Your task to perform on an android device: toggle sleep mode Image 0: 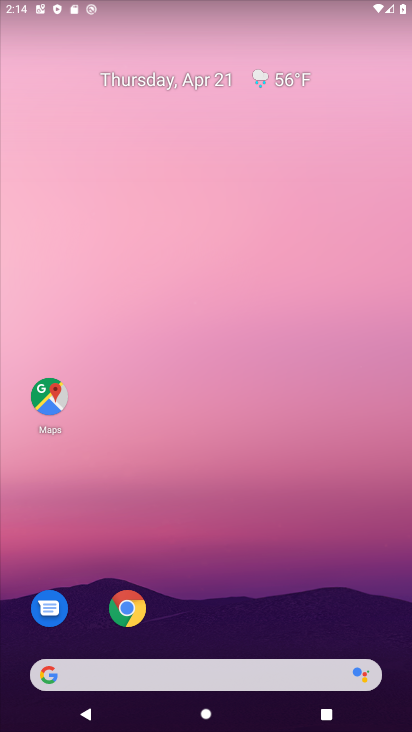
Step 0: drag from (292, 600) to (188, 53)
Your task to perform on an android device: toggle sleep mode Image 1: 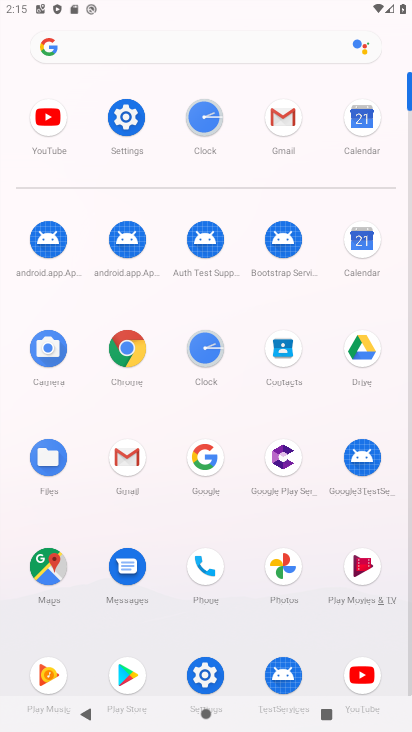
Step 1: click (126, 114)
Your task to perform on an android device: toggle sleep mode Image 2: 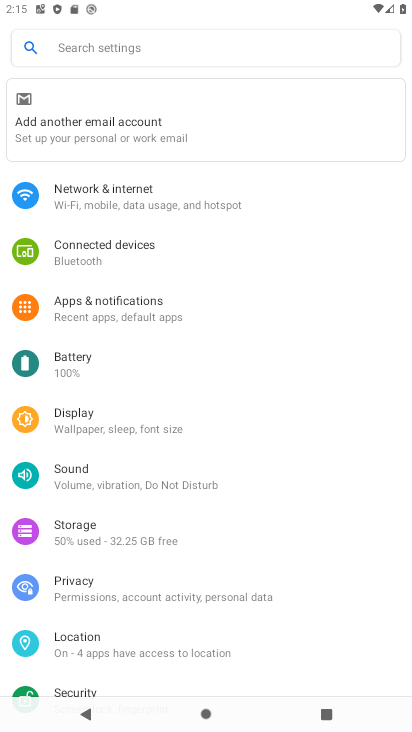
Step 2: click (117, 421)
Your task to perform on an android device: toggle sleep mode Image 3: 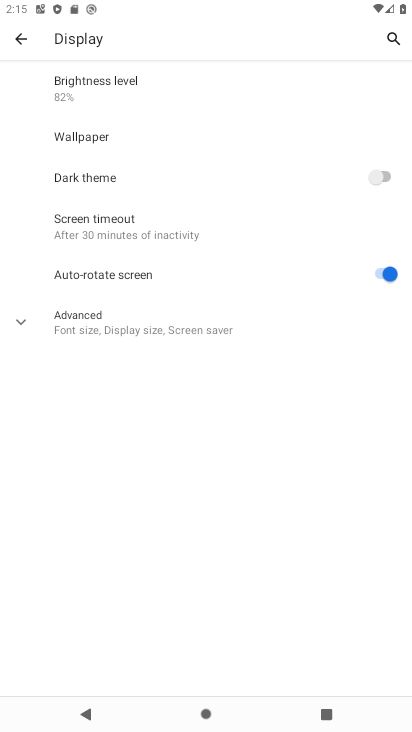
Step 3: click (159, 326)
Your task to perform on an android device: toggle sleep mode Image 4: 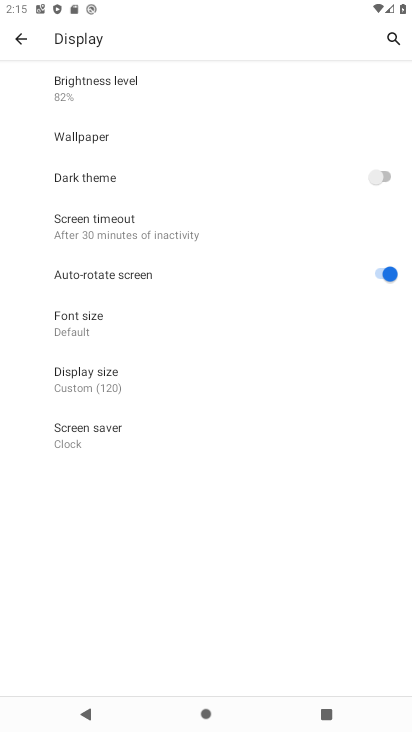
Step 4: task complete